Your task to perform on an android device: Go to sound settings Image 0: 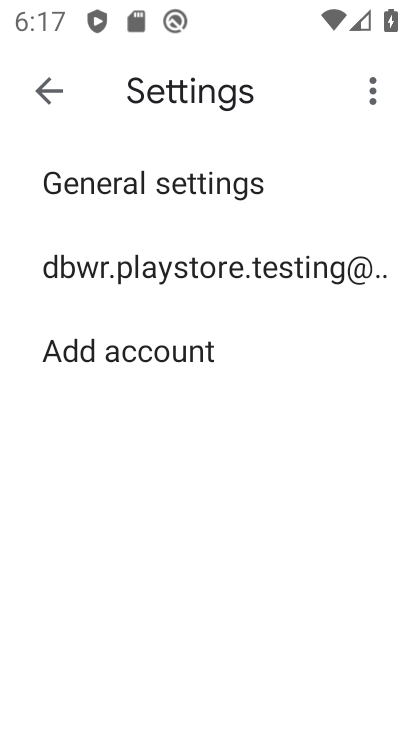
Step 0: click (37, 90)
Your task to perform on an android device: Go to sound settings Image 1: 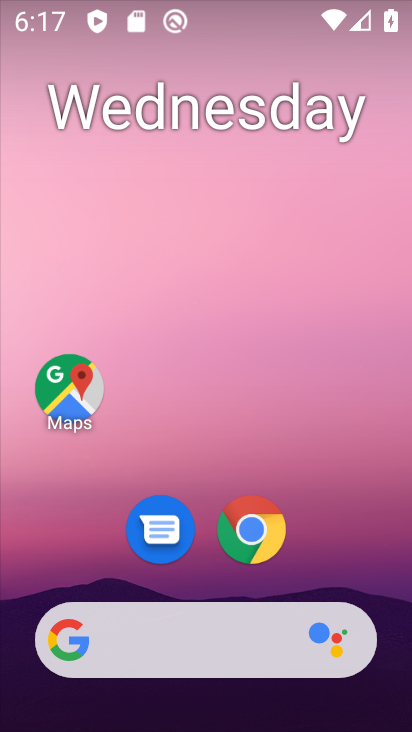
Step 1: drag from (213, 541) to (225, 112)
Your task to perform on an android device: Go to sound settings Image 2: 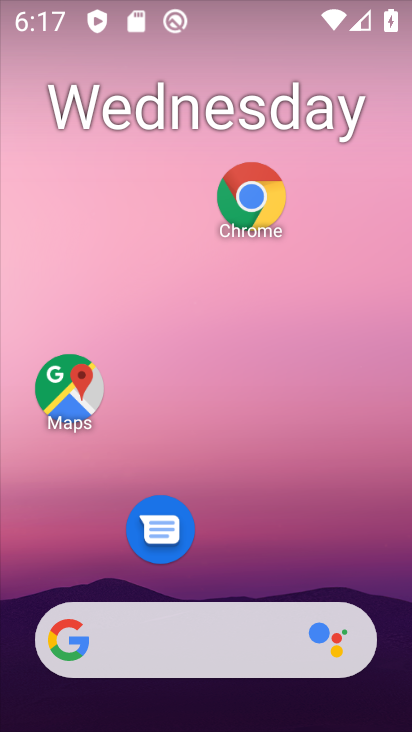
Step 2: drag from (223, 604) to (208, 123)
Your task to perform on an android device: Go to sound settings Image 3: 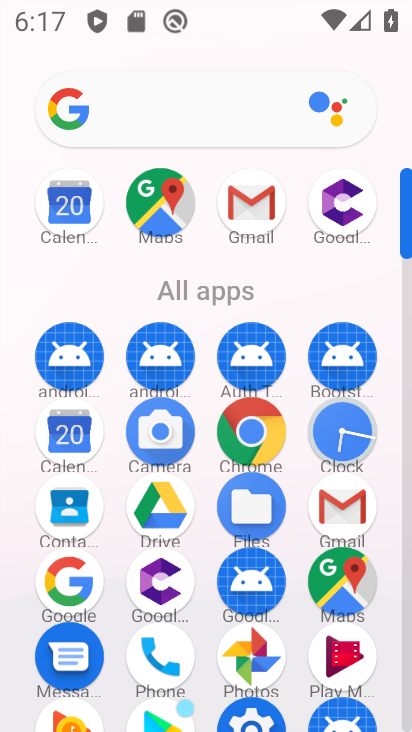
Step 3: drag from (204, 600) to (208, 136)
Your task to perform on an android device: Go to sound settings Image 4: 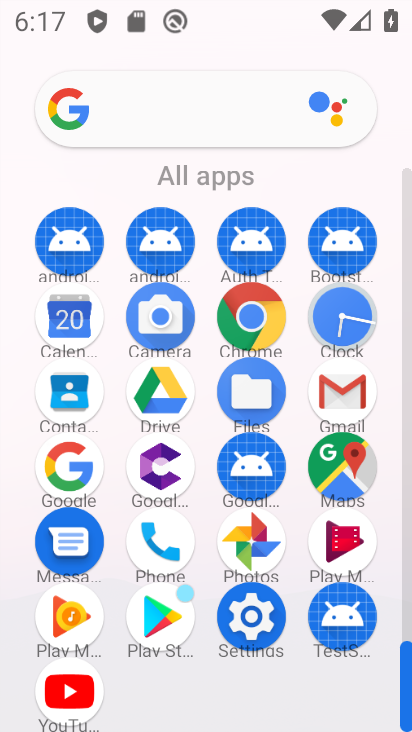
Step 4: click (253, 621)
Your task to perform on an android device: Go to sound settings Image 5: 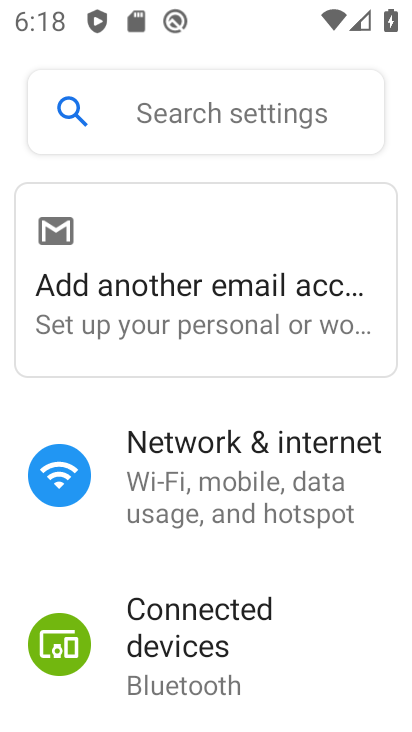
Step 5: drag from (301, 549) to (301, 236)
Your task to perform on an android device: Go to sound settings Image 6: 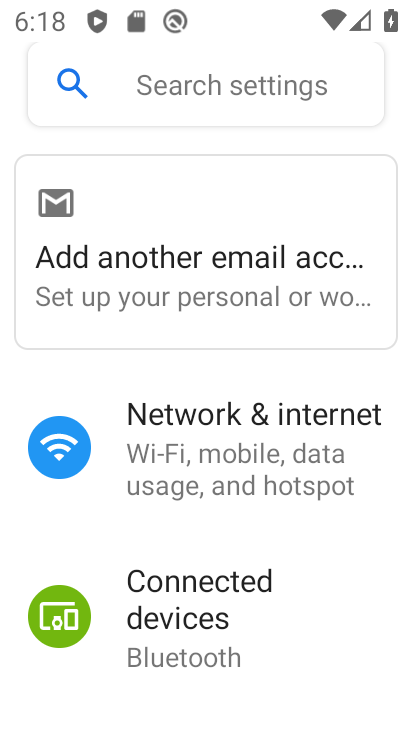
Step 6: drag from (251, 658) to (241, 367)
Your task to perform on an android device: Go to sound settings Image 7: 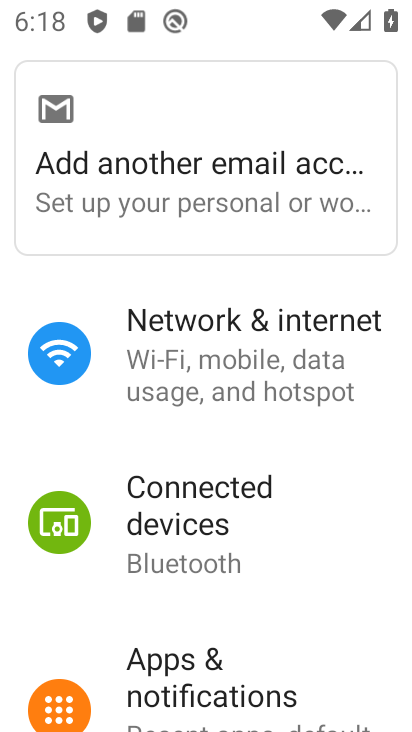
Step 7: drag from (265, 716) to (248, 395)
Your task to perform on an android device: Go to sound settings Image 8: 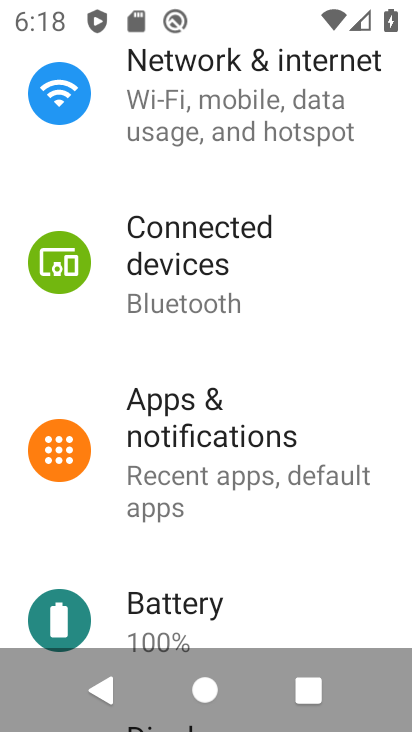
Step 8: click (226, 657)
Your task to perform on an android device: Go to sound settings Image 9: 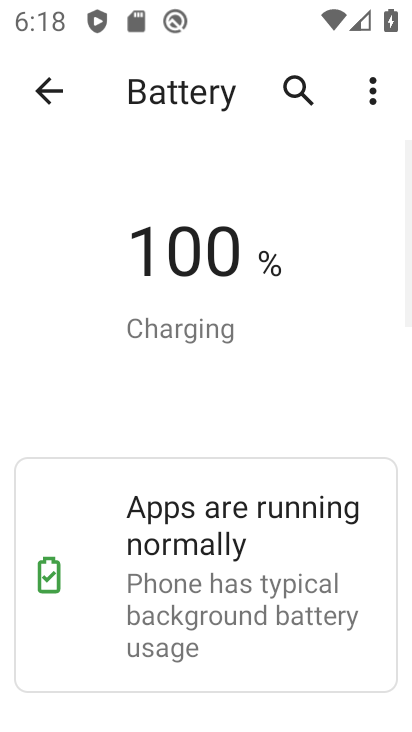
Step 9: click (41, 90)
Your task to perform on an android device: Go to sound settings Image 10: 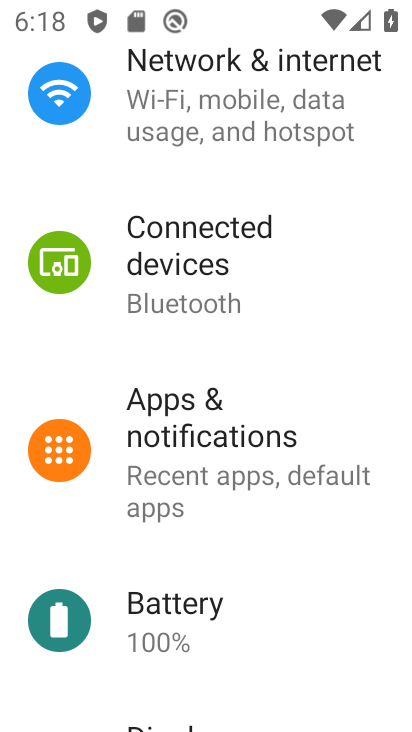
Step 10: drag from (273, 504) to (273, 235)
Your task to perform on an android device: Go to sound settings Image 11: 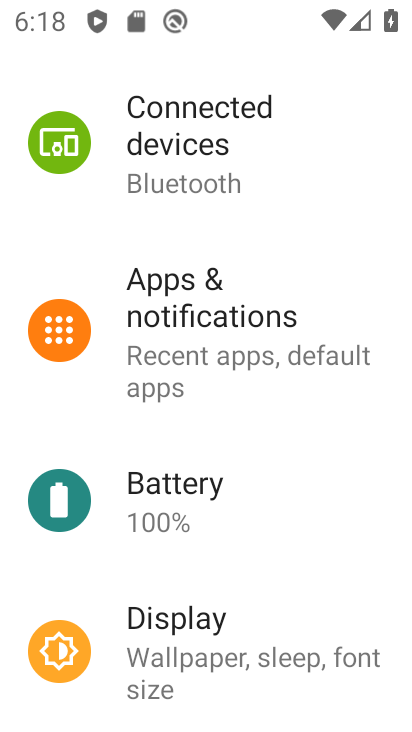
Step 11: drag from (260, 623) to (254, 305)
Your task to perform on an android device: Go to sound settings Image 12: 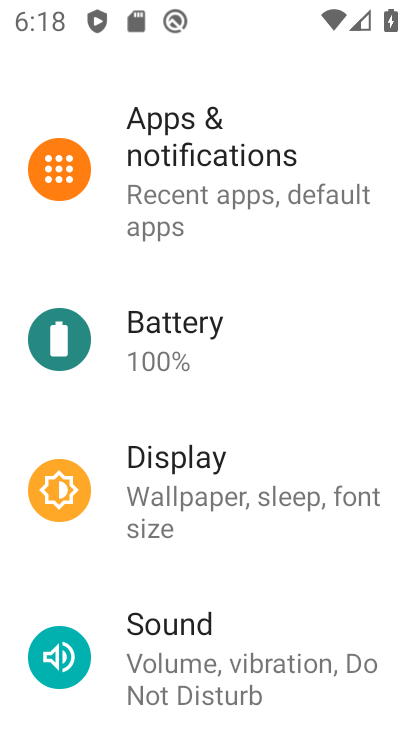
Step 12: click (220, 651)
Your task to perform on an android device: Go to sound settings Image 13: 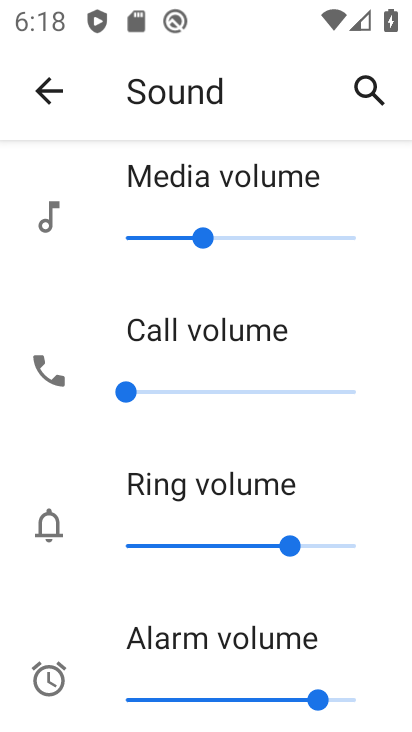
Step 13: task complete